Your task to perform on an android device: turn smart compose on in the gmail app Image 0: 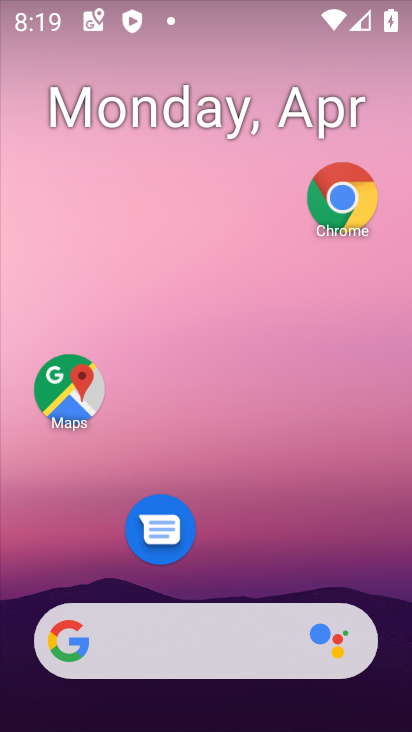
Step 0: drag from (240, 451) to (301, 33)
Your task to perform on an android device: turn smart compose on in the gmail app Image 1: 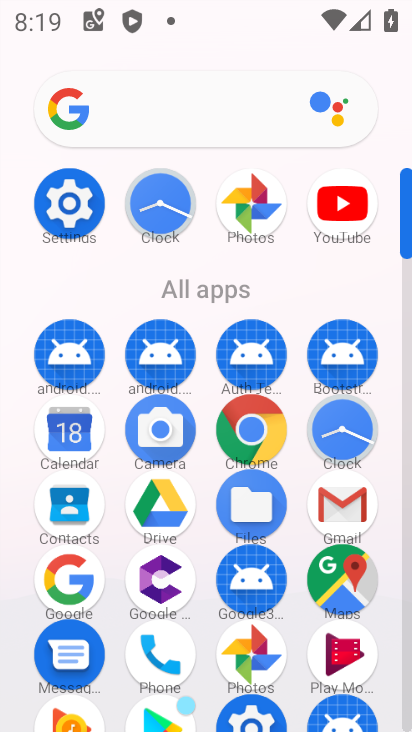
Step 1: click (346, 505)
Your task to perform on an android device: turn smart compose on in the gmail app Image 2: 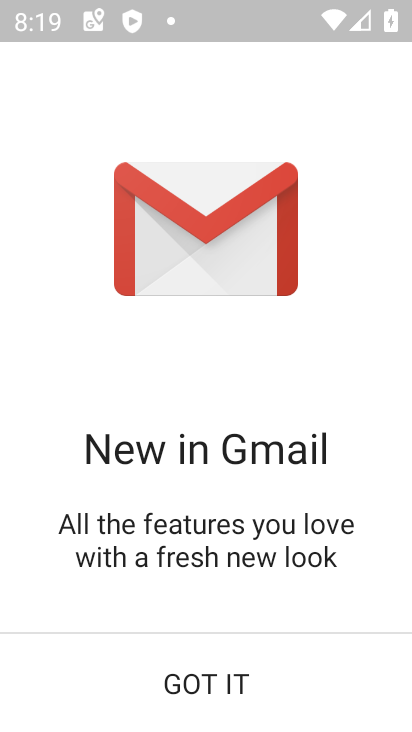
Step 2: click (203, 671)
Your task to perform on an android device: turn smart compose on in the gmail app Image 3: 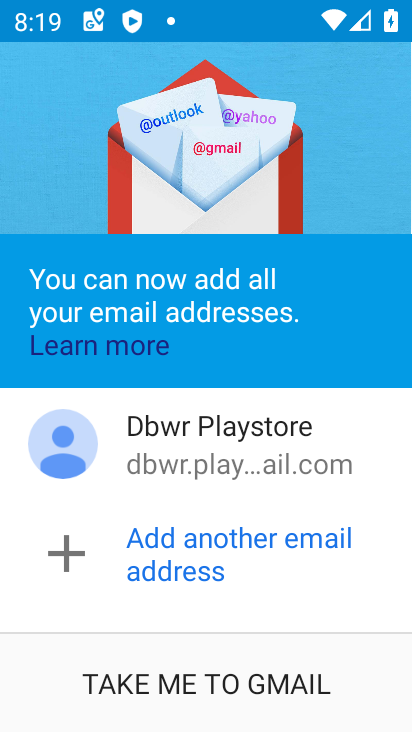
Step 3: click (210, 685)
Your task to perform on an android device: turn smart compose on in the gmail app Image 4: 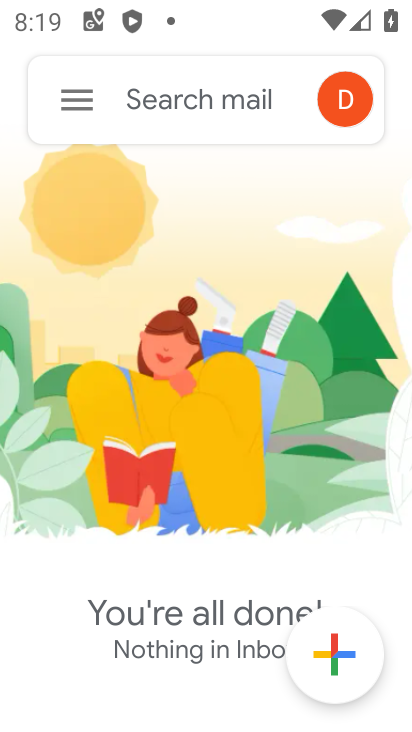
Step 4: click (86, 105)
Your task to perform on an android device: turn smart compose on in the gmail app Image 5: 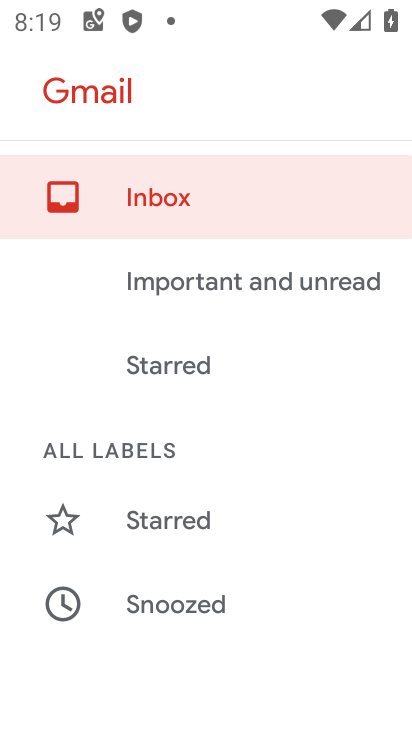
Step 5: drag from (195, 643) to (330, 41)
Your task to perform on an android device: turn smart compose on in the gmail app Image 6: 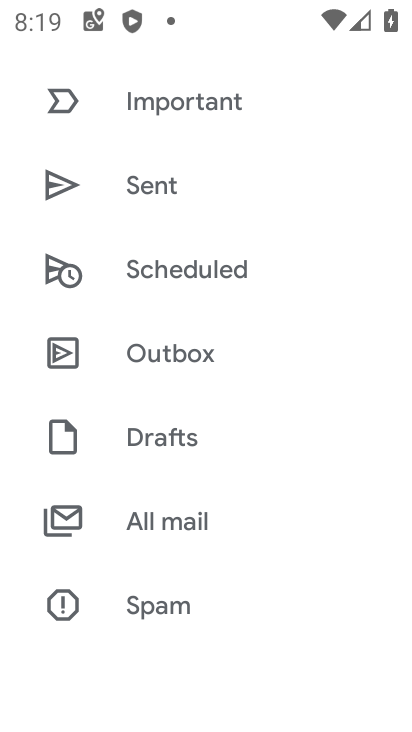
Step 6: drag from (173, 582) to (303, 93)
Your task to perform on an android device: turn smart compose on in the gmail app Image 7: 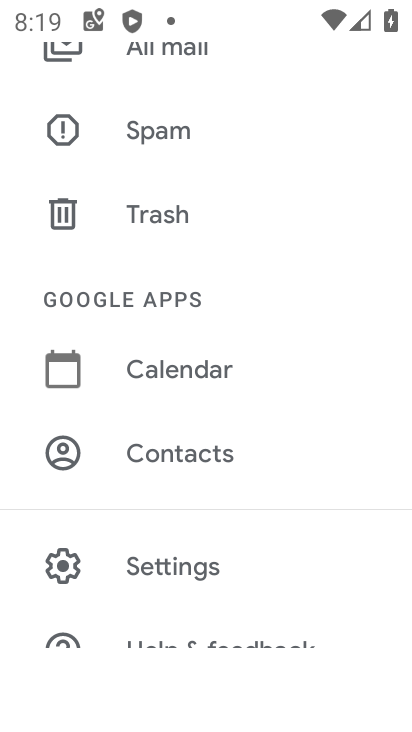
Step 7: click (145, 576)
Your task to perform on an android device: turn smart compose on in the gmail app Image 8: 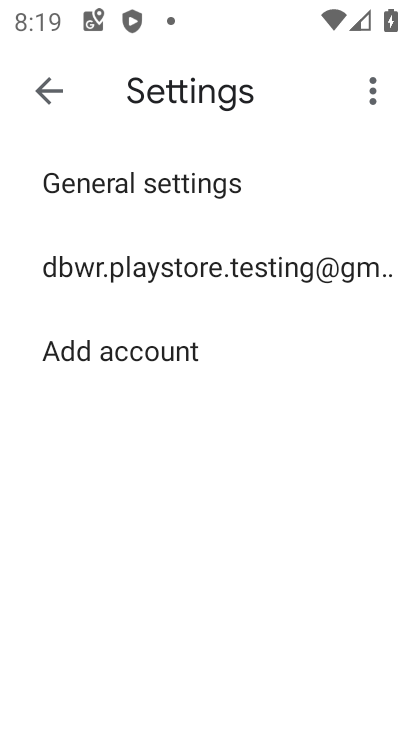
Step 8: click (173, 267)
Your task to perform on an android device: turn smart compose on in the gmail app Image 9: 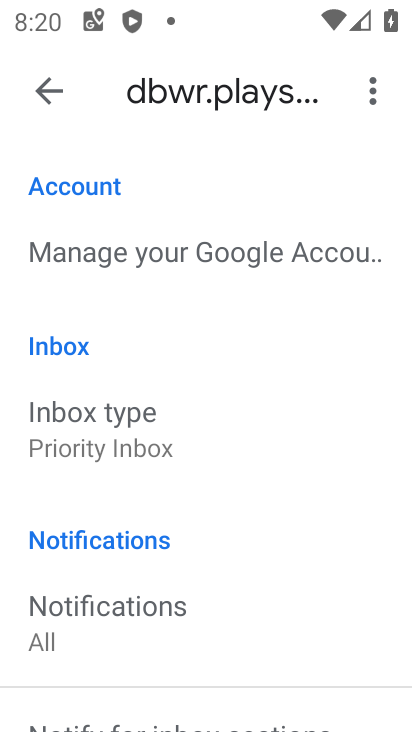
Step 9: task complete